Your task to perform on an android device: all mails in gmail Image 0: 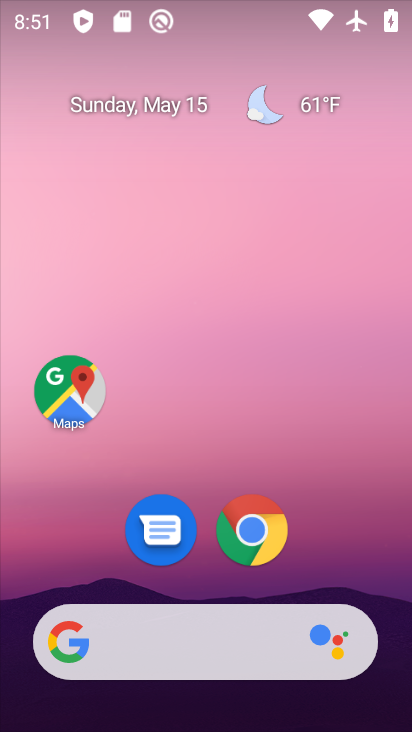
Step 0: drag from (215, 720) to (184, 88)
Your task to perform on an android device: all mails in gmail Image 1: 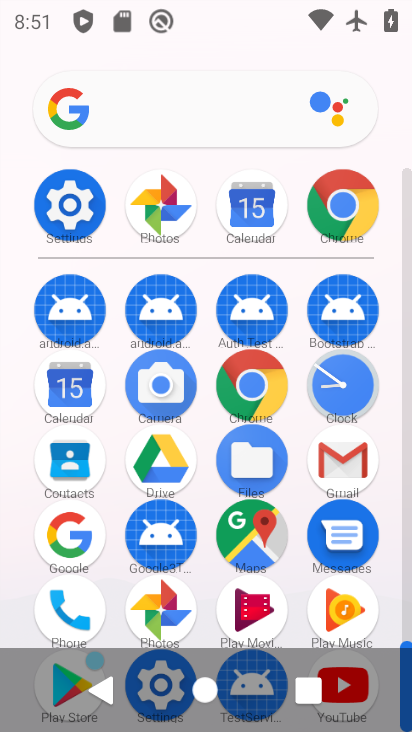
Step 1: click (335, 461)
Your task to perform on an android device: all mails in gmail Image 2: 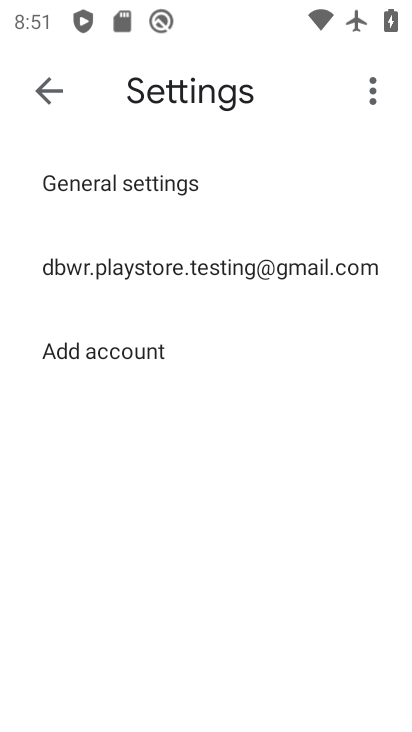
Step 2: click (55, 83)
Your task to perform on an android device: all mails in gmail Image 3: 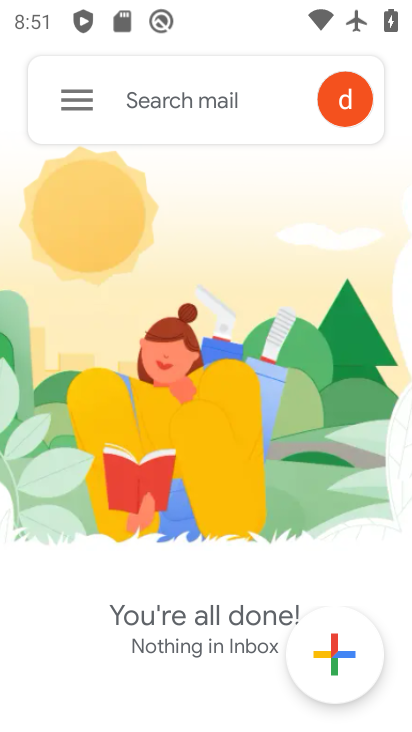
Step 3: click (64, 99)
Your task to perform on an android device: all mails in gmail Image 4: 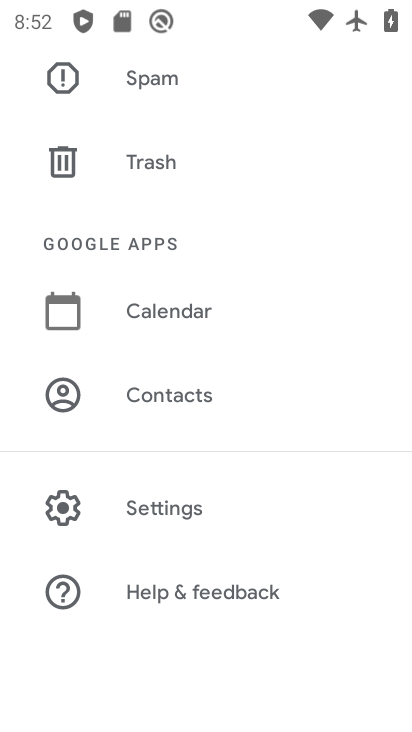
Step 4: drag from (206, 163) to (247, 504)
Your task to perform on an android device: all mails in gmail Image 5: 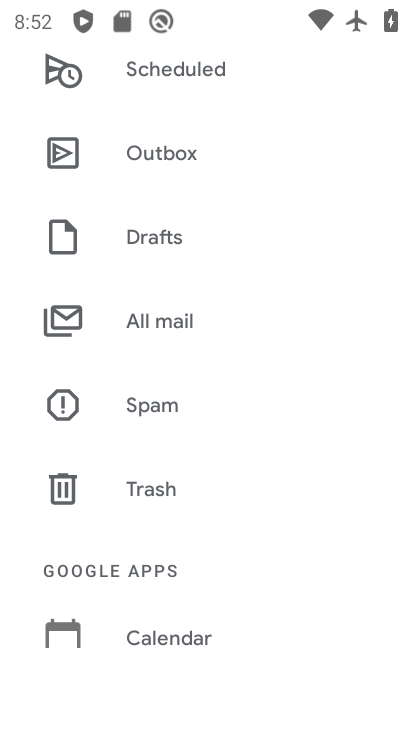
Step 5: click (156, 320)
Your task to perform on an android device: all mails in gmail Image 6: 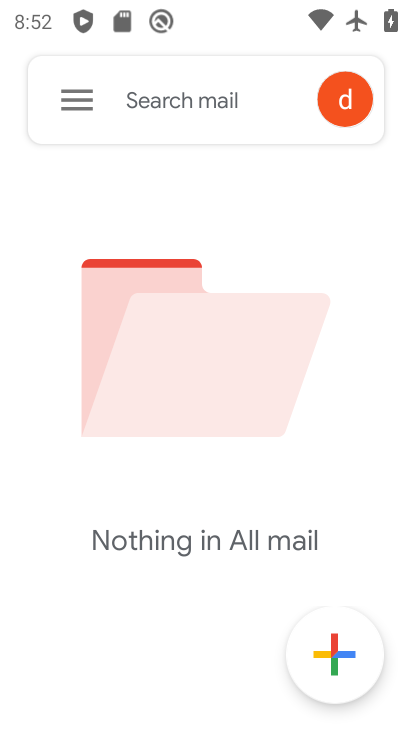
Step 6: task complete